Your task to perform on an android device: Open Chrome and go to settings Image 0: 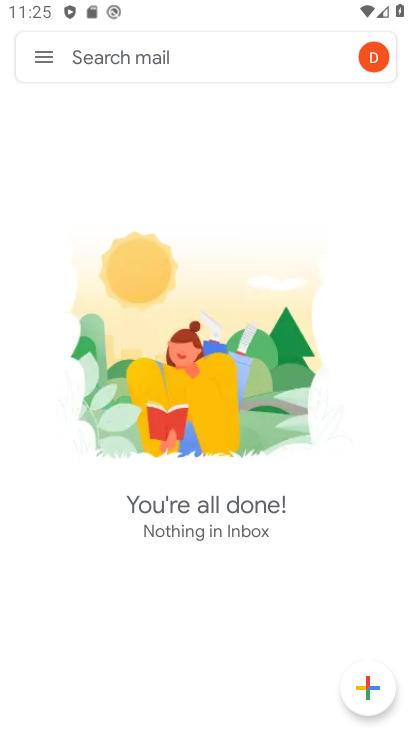
Step 0: press home button
Your task to perform on an android device: Open Chrome and go to settings Image 1: 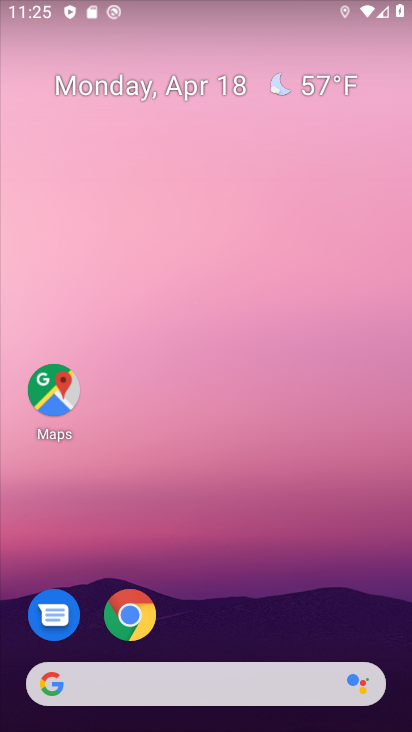
Step 1: click (132, 616)
Your task to perform on an android device: Open Chrome and go to settings Image 2: 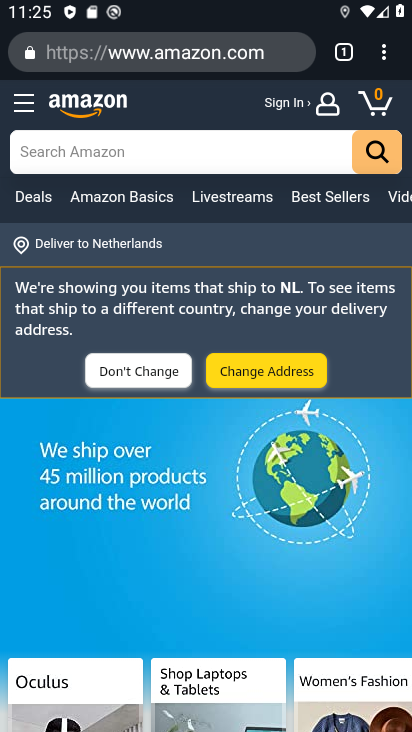
Step 2: click (375, 59)
Your task to perform on an android device: Open Chrome and go to settings Image 3: 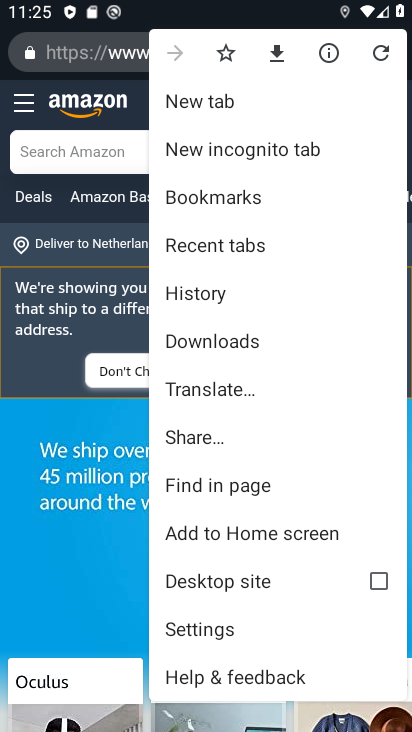
Step 3: click (233, 633)
Your task to perform on an android device: Open Chrome and go to settings Image 4: 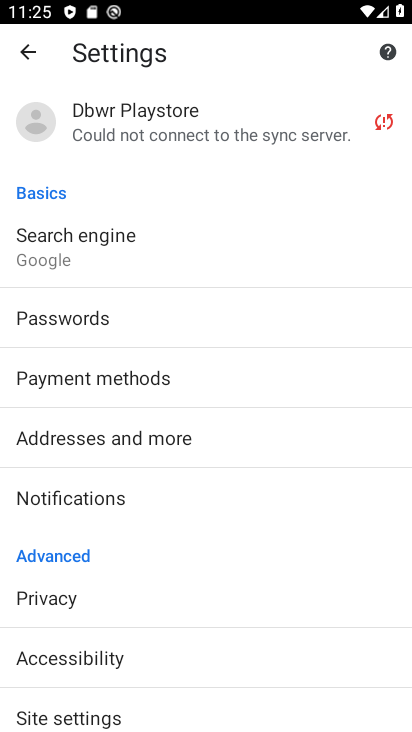
Step 4: task complete